Your task to perform on an android device: change the clock display to digital Image 0: 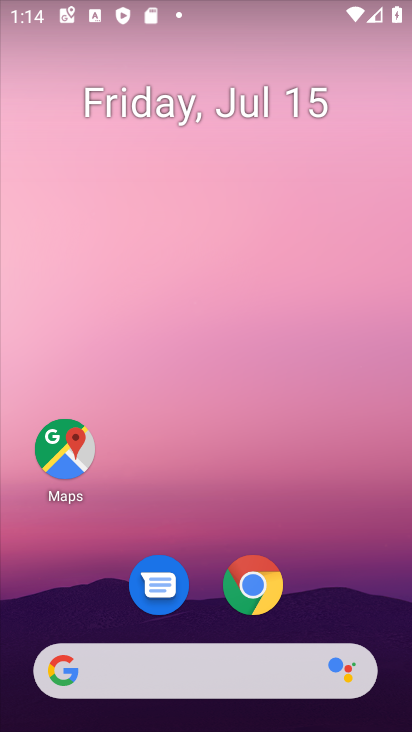
Step 0: drag from (259, 502) to (272, 1)
Your task to perform on an android device: change the clock display to digital Image 1: 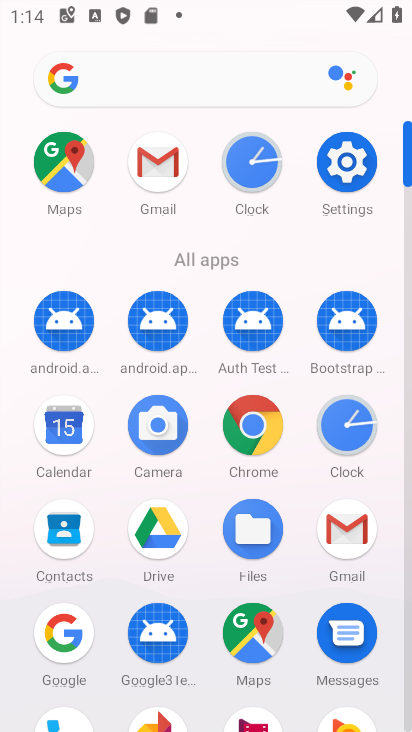
Step 1: click (252, 166)
Your task to perform on an android device: change the clock display to digital Image 2: 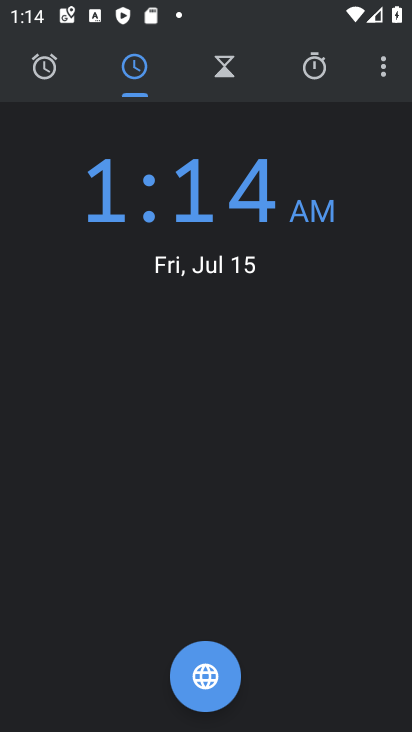
Step 2: task complete